Your task to perform on an android device: turn off wifi Image 0: 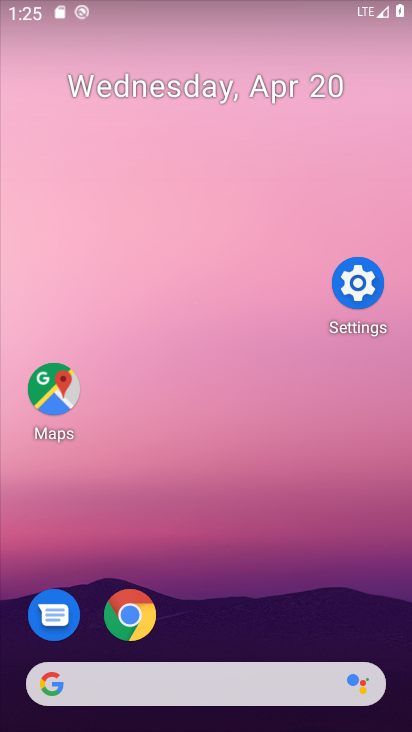
Step 0: drag from (257, 556) to (315, 119)
Your task to perform on an android device: turn off wifi Image 1: 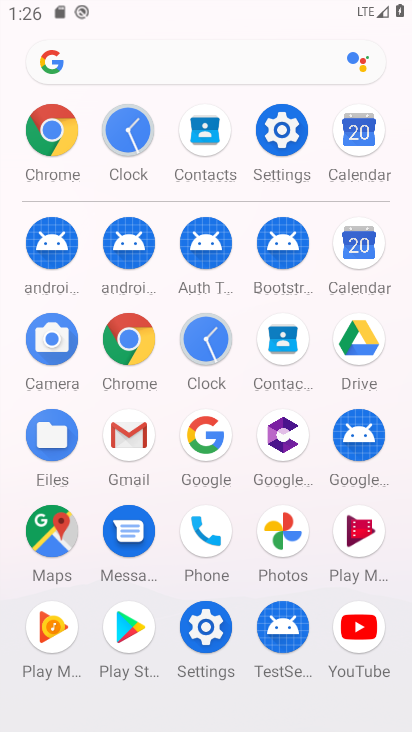
Step 1: click (285, 117)
Your task to perform on an android device: turn off wifi Image 2: 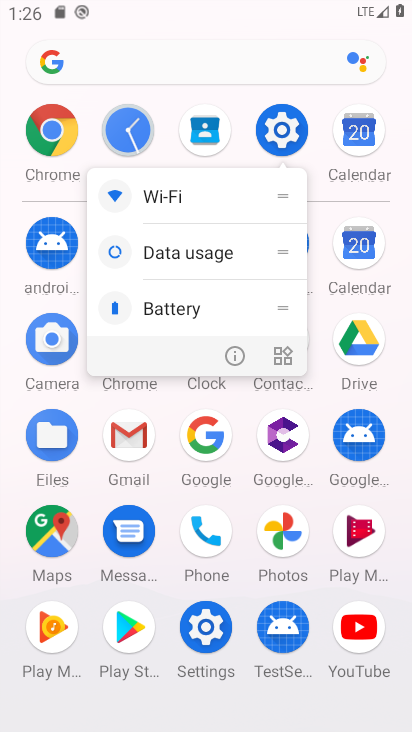
Step 2: click (210, 199)
Your task to perform on an android device: turn off wifi Image 3: 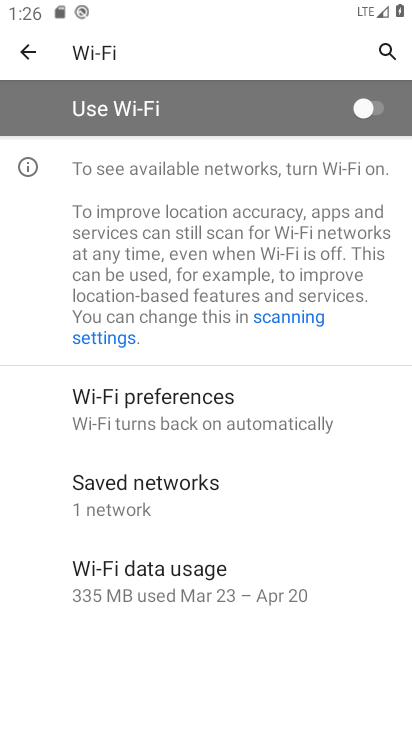
Step 3: click (345, 105)
Your task to perform on an android device: turn off wifi Image 4: 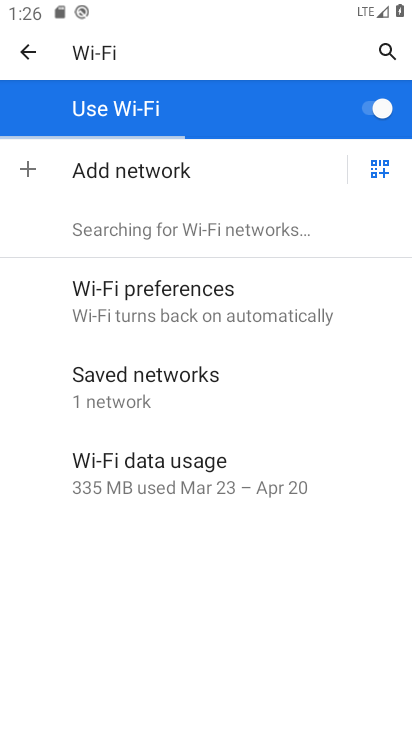
Step 4: drag from (175, 489) to (249, 191)
Your task to perform on an android device: turn off wifi Image 5: 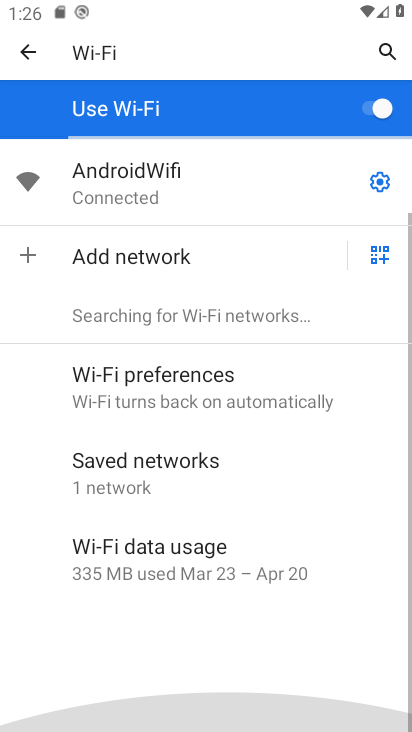
Step 5: click (373, 105)
Your task to perform on an android device: turn off wifi Image 6: 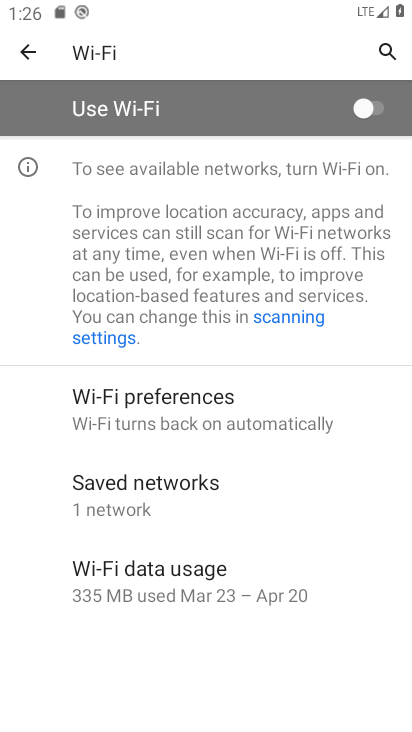
Step 6: task complete